Your task to perform on an android device: Open the phone app and click the voicemail tab. Image 0: 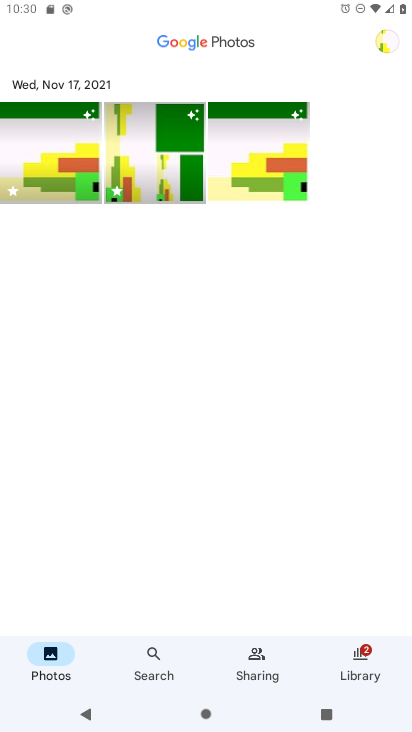
Step 0: press home button
Your task to perform on an android device: Open the phone app and click the voicemail tab. Image 1: 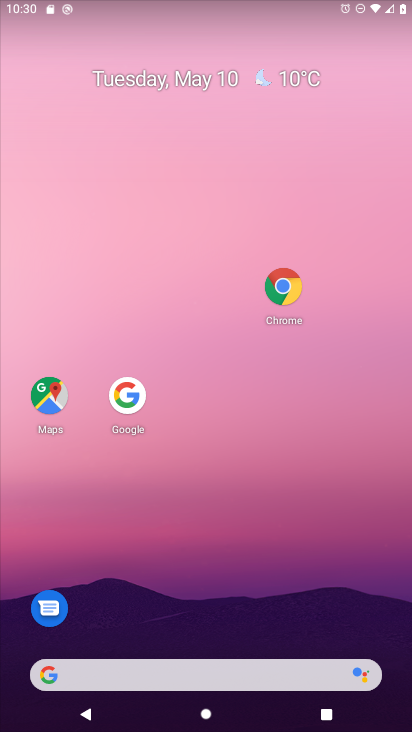
Step 1: drag from (158, 678) to (274, 274)
Your task to perform on an android device: Open the phone app and click the voicemail tab. Image 2: 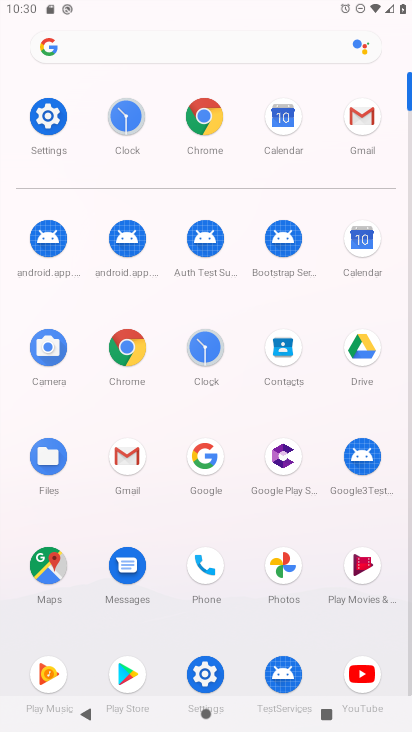
Step 2: click (204, 568)
Your task to perform on an android device: Open the phone app and click the voicemail tab. Image 3: 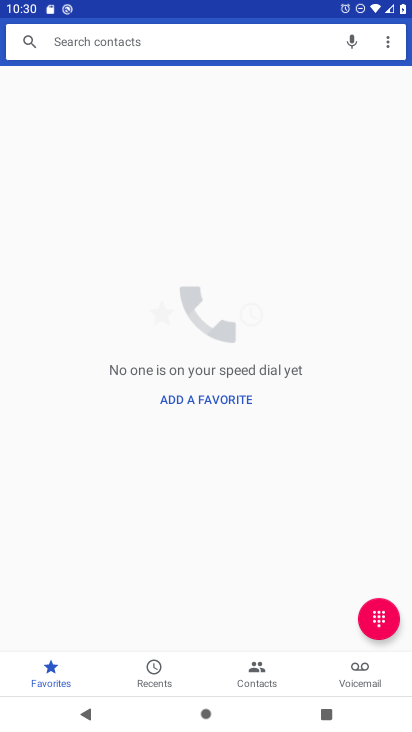
Step 3: click (360, 665)
Your task to perform on an android device: Open the phone app and click the voicemail tab. Image 4: 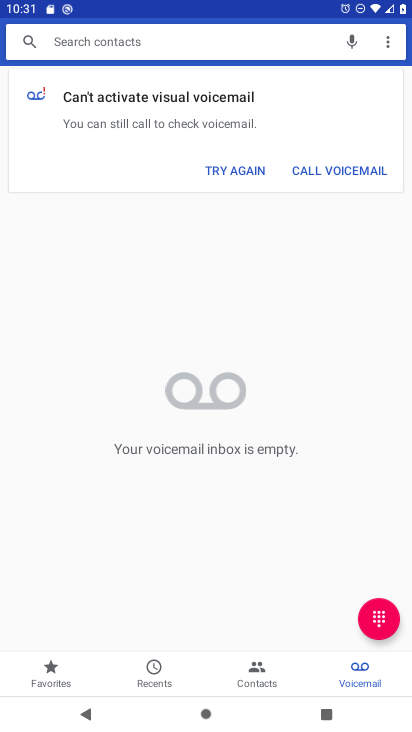
Step 4: task complete